Your task to perform on an android device: What's on my calendar today? Image 0: 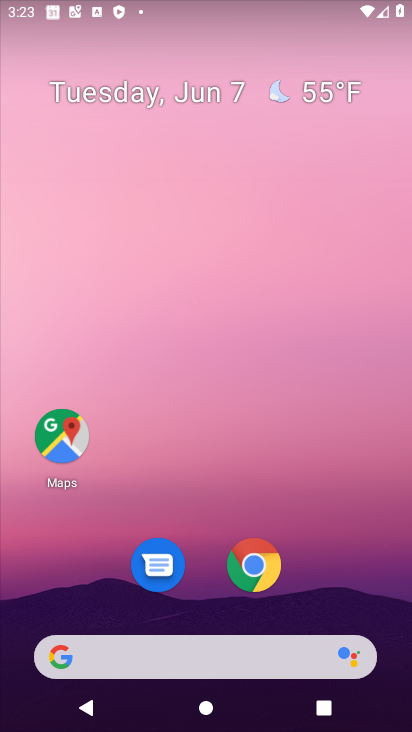
Step 0: drag from (199, 612) to (197, 59)
Your task to perform on an android device: What's on my calendar today? Image 1: 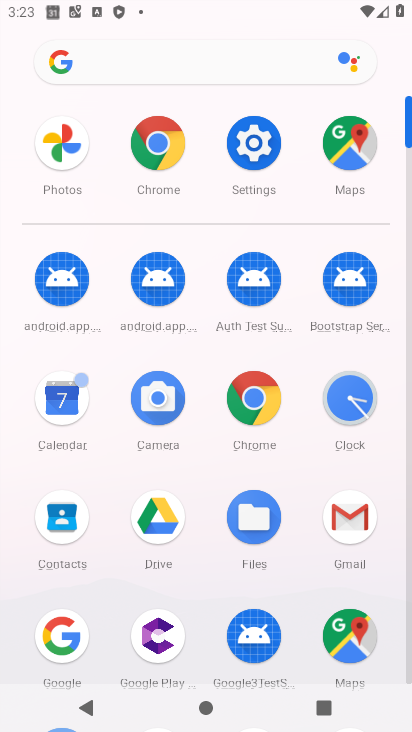
Step 1: click (69, 408)
Your task to perform on an android device: What's on my calendar today? Image 2: 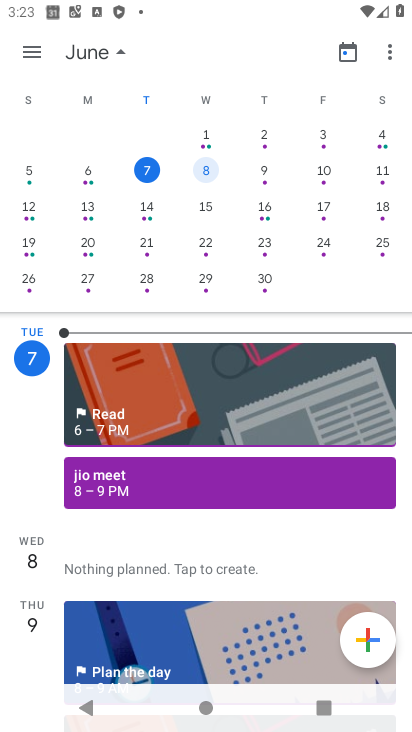
Step 2: task complete